Your task to perform on an android device: change the upload size in google photos Image 0: 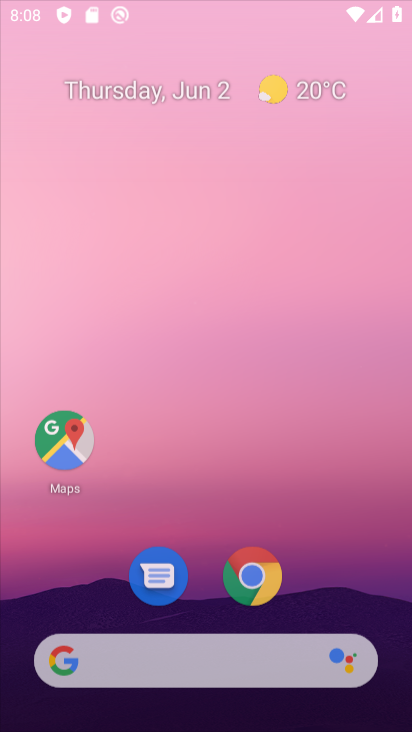
Step 0: drag from (276, 225) to (246, 432)
Your task to perform on an android device: change the upload size in google photos Image 1: 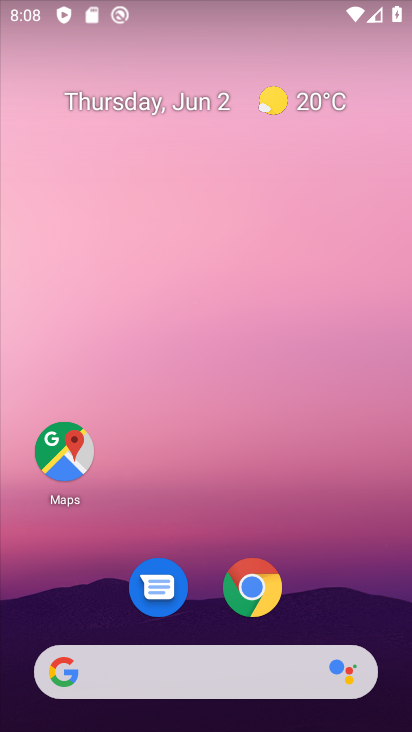
Step 1: drag from (188, 7) to (128, 396)
Your task to perform on an android device: change the upload size in google photos Image 2: 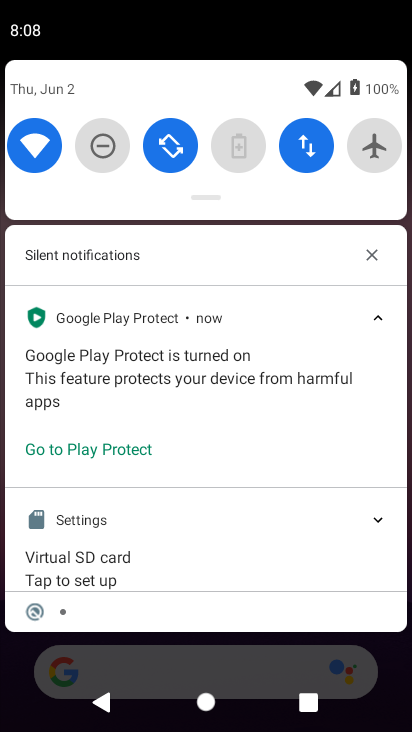
Step 2: click (41, 161)
Your task to perform on an android device: change the upload size in google photos Image 3: 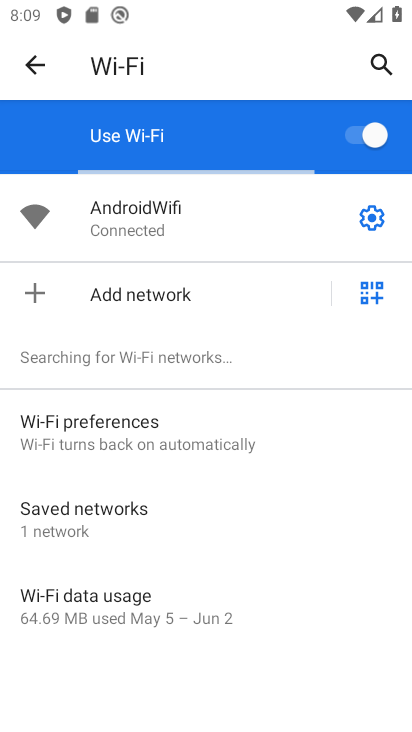
Step 3: task complete